Your task to perform on an android device: Go to ESPN.com Image 0: 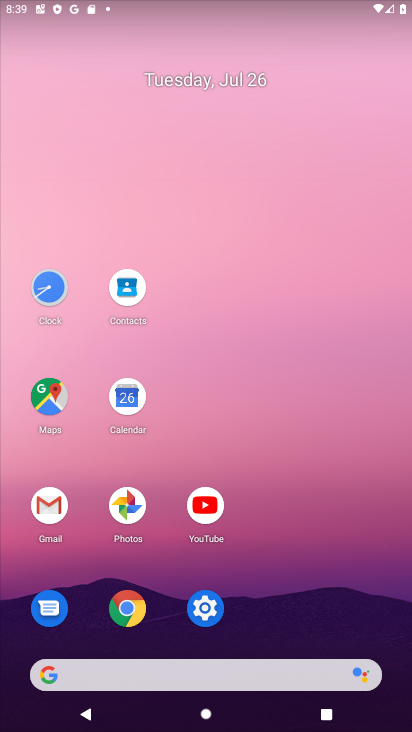
Step 0: click (123, 607)
Your task to perform on an android device: Go to ESPN.com Image 1: 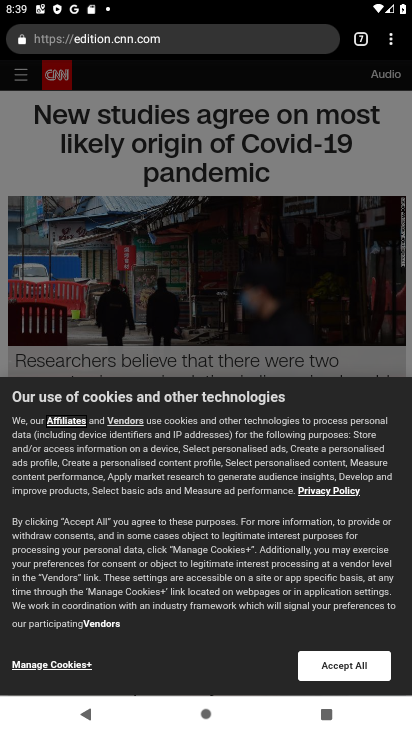
Step 1: click (391, 39)
Your task to perform on an android device: Go to ESPN.com Image 2: 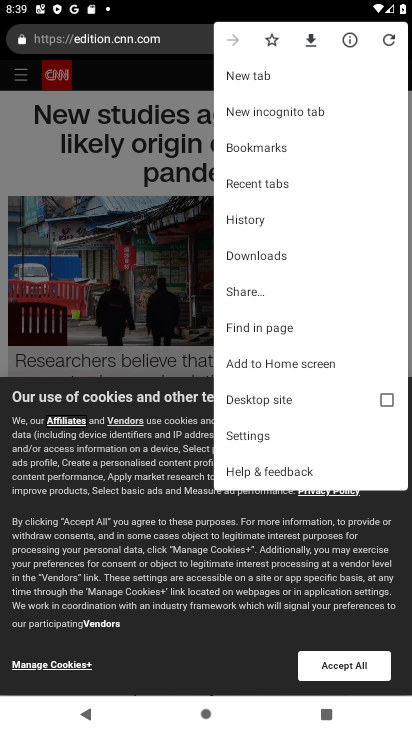
Step 2: click (253, 78)
Your task to perform on an android device: Go to ESPN.com Image 3: 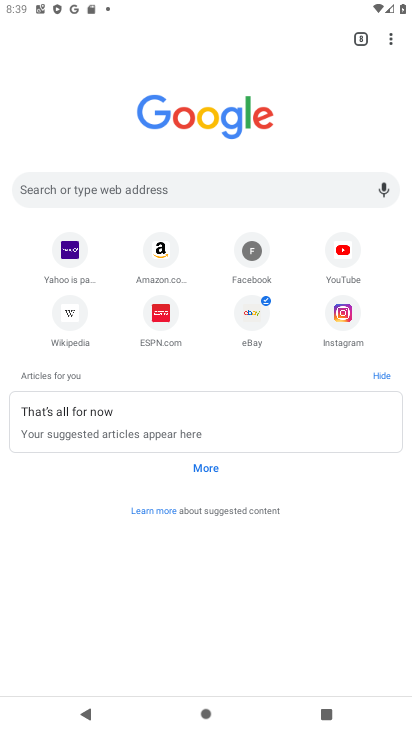
Step 3: click (161, 311)
Your task to perform on an android device: Go to ESPN.com Image 4: 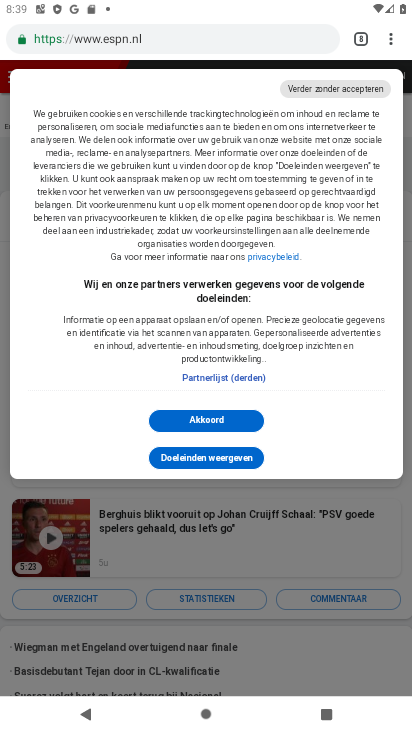
Step 4: click (199, 425)
Your task to perform on an android device: Go to ESPN.com Image 5: 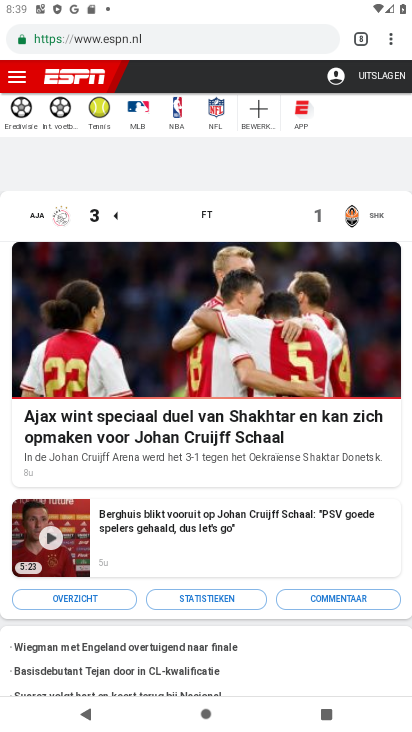
Step 5: task complete